Your task to perform on an android device: turn off translation in the chrome app Image 0: 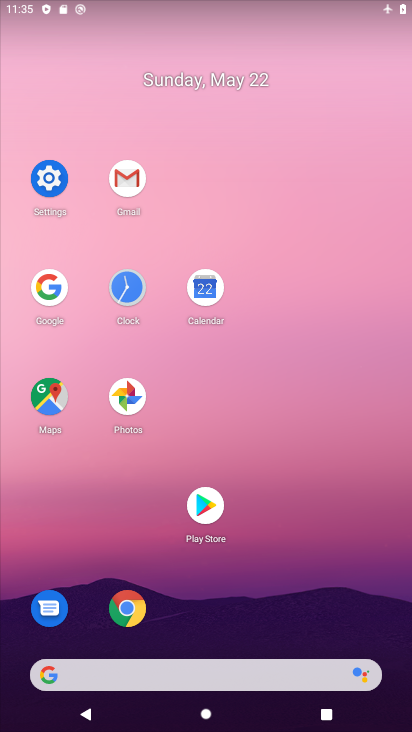
Step 0: click (131, 602)
Your task to perform on an android device: turn off translation in the chrome app Image 1: 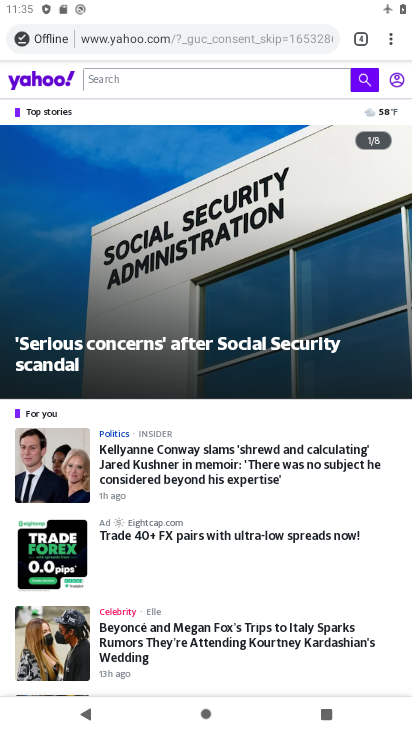
Step 1: click (395, 50)
Your task to perform on an android device: turn off translation in the chrome app Image 2: 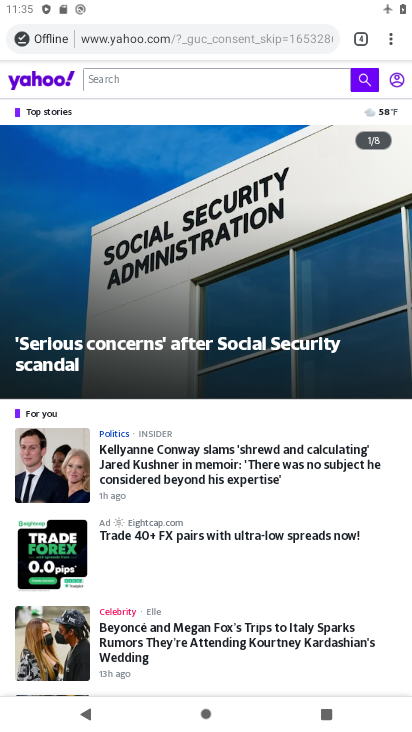
Step 2: click (391, 41)
Your task to perform on an android device: turn off translation in the chrome app Image 3: 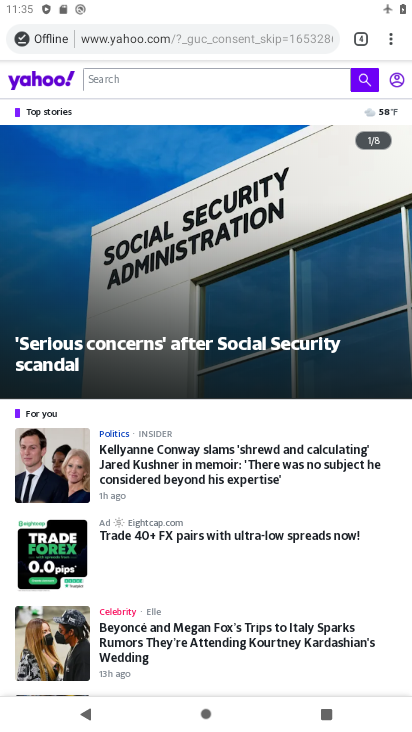
Step 3: click (390, 41)
Your task to perform on an android device: turn off translation in the chrome app Image 4: 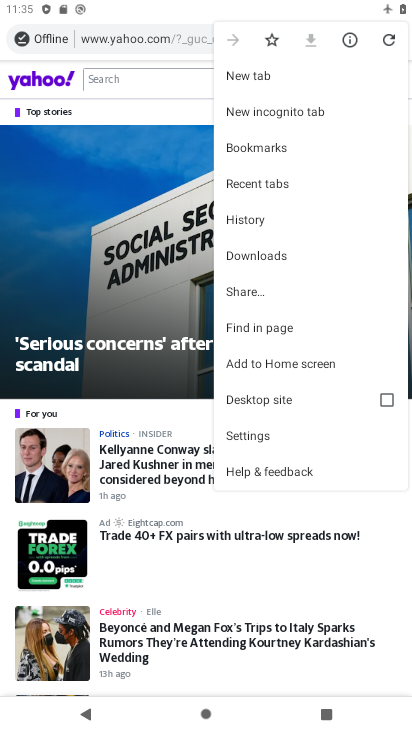
Step 4: drag from (299, 382) to (307, 133)
Your task to perform on an android device: turn off translation in the chrome app Image 5: 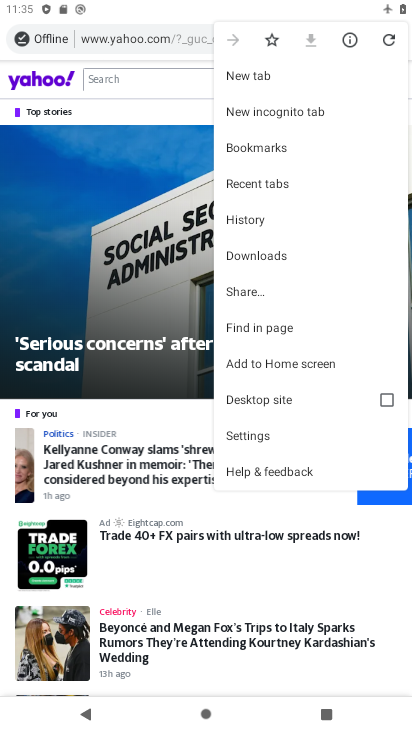
Step 5: click (280, 433)
Your task to perform on an android device: turn off translation in the chrome app Image 6: 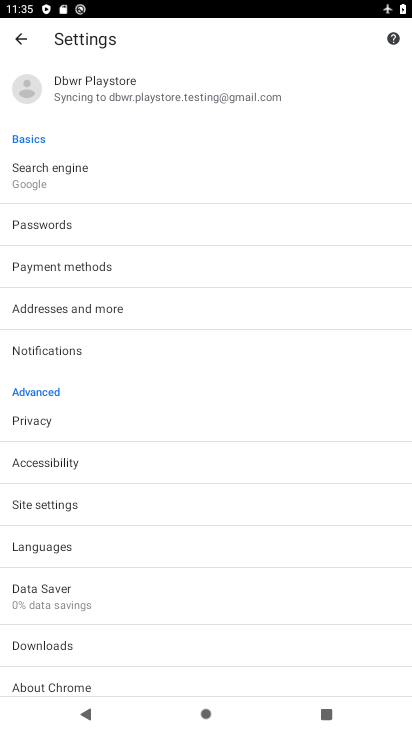
Step 6: click (70, 546)
Your task to perform on an android device: turn off translation in the chrome app Image 7: 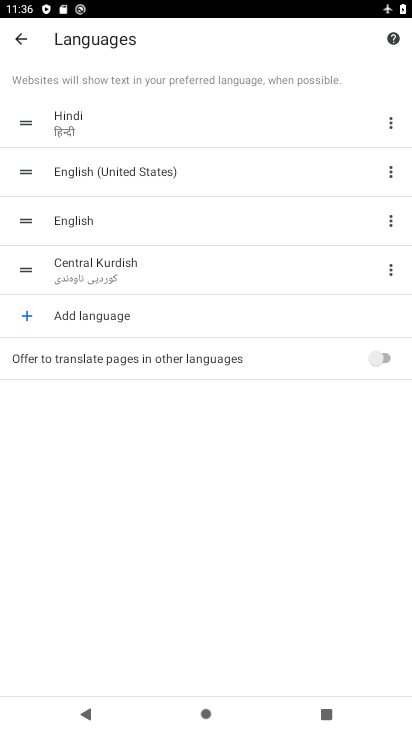
Step 7: task complete